Your task to perform on an android device: turn on improve location accuracy Image 0: 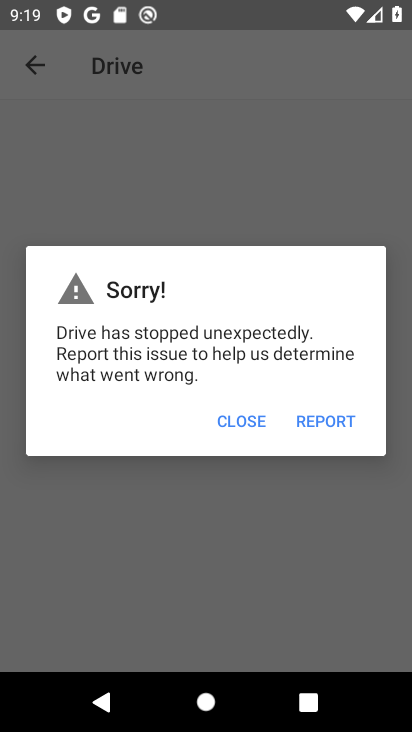
Step 0: press home button
Your task to perform on an android device: turn on improve location accuracy Image 1: 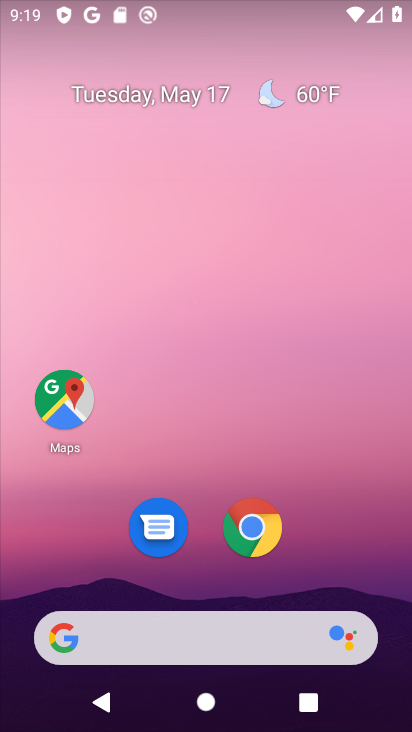
Step 1: drag from (196, 371) to (229, 26)
Your task to perform on an android device: turn on improve location accuracy Image 2: 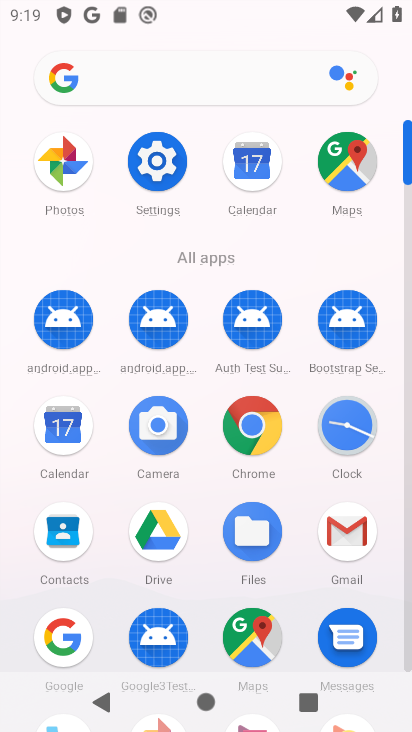
Step 2: click (143, 150)
Your task to perform on an android device: turn on improve location accuracy Image 3: 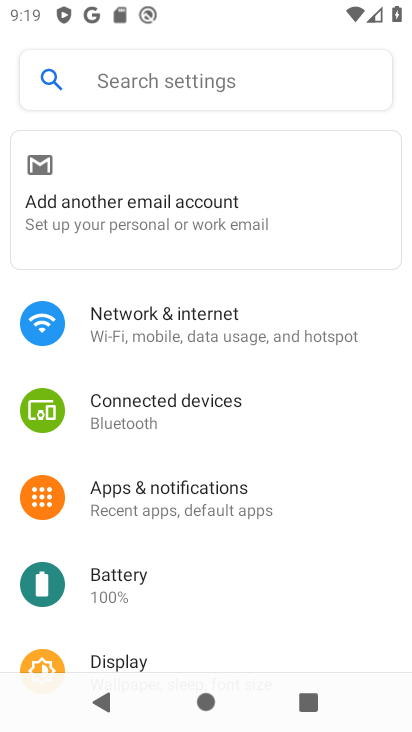
Step 3: drag from (164, 596) to (241, 117)
Your task to perform on an android device: turn on improve location accuracy Image 4: 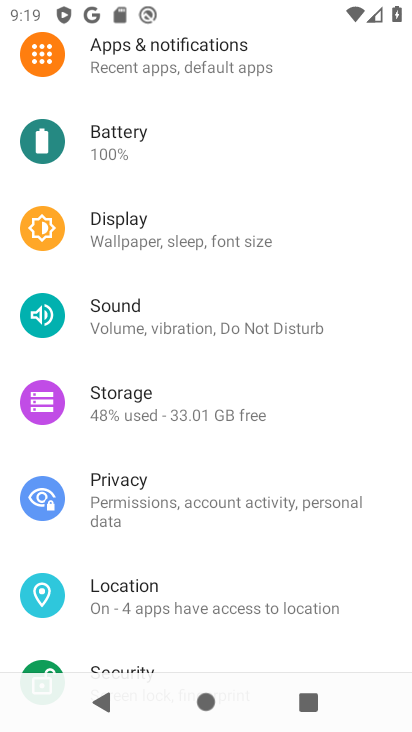
Step 4: click (189, 609)
Your task to perform on an android device: turn on improve location accuracy Image 5: 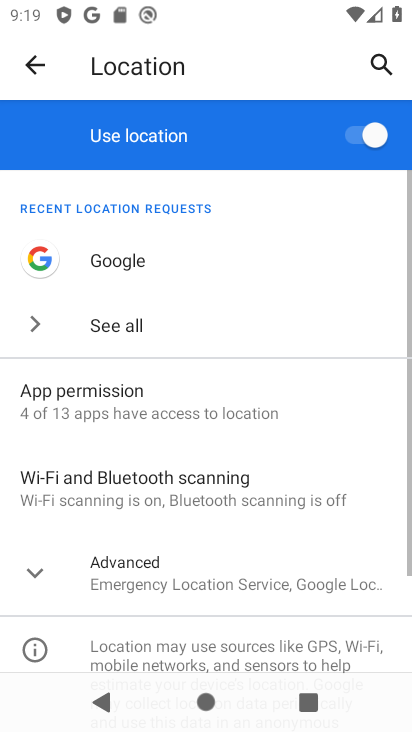
Step 5: click (223, 594)
Your task to perform on an android device: turn on improve location accuracy Image 6: 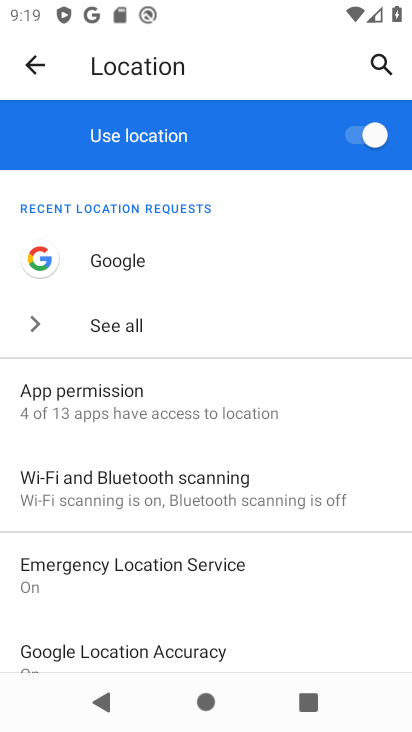
Step 6: click (230, 654)
Your task to perform on an android device: turn on improve location accuracy Image 7: 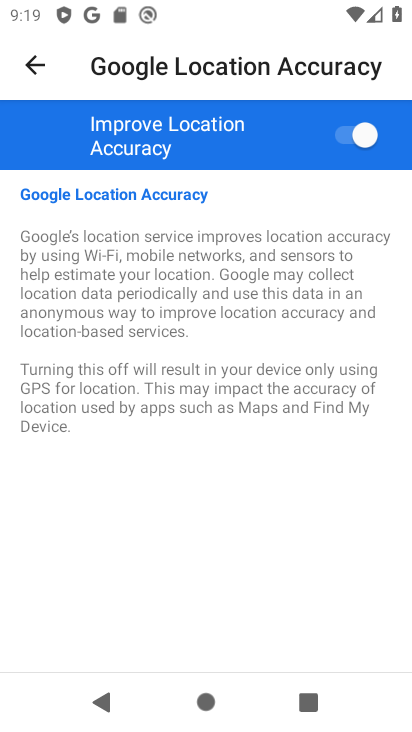
Step 7: task complete